Your task to perform on an android device: Open Reddit.com Image 0: 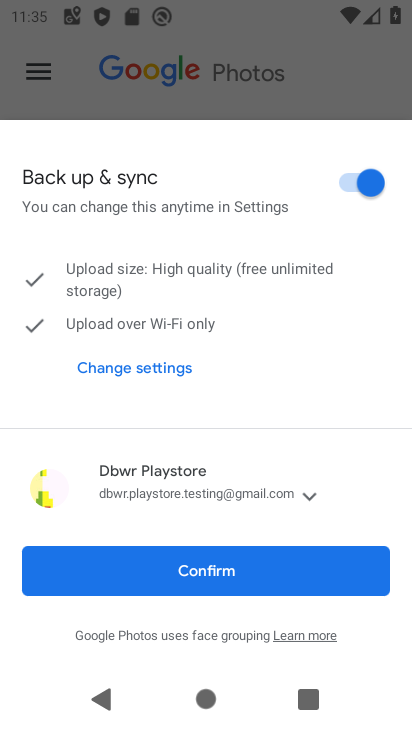
Step 0: press home button
Your task to perform on an android device: Open Reddit.com Image 1: 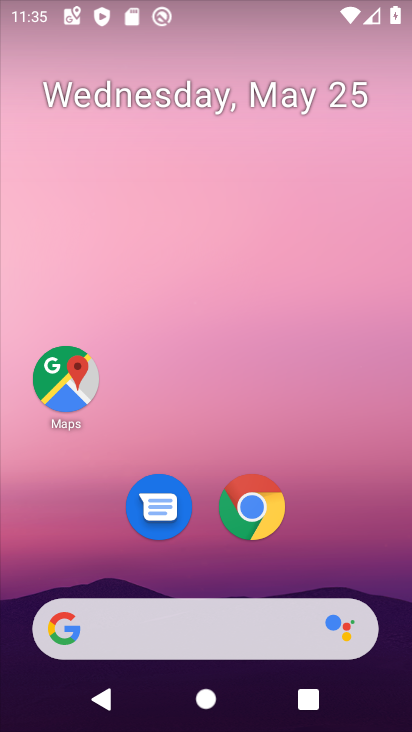
Step 1: click (255, 510)
Your task to perform on an android device: Open Reddit.com Image 2: 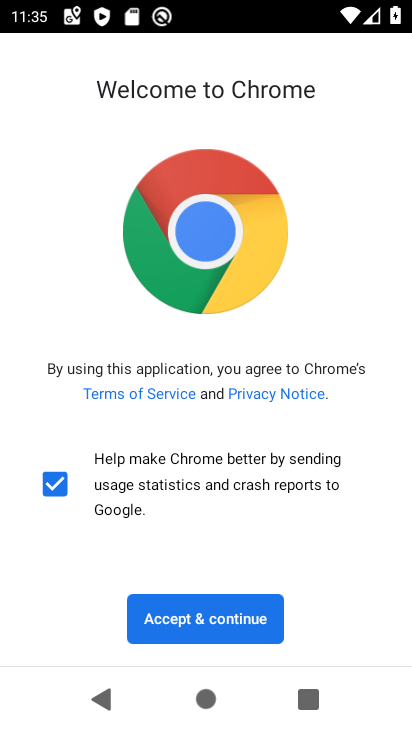
Step 2: click (205, 617)
Your task to perform on an android device: Open Reddit.com Image 3: 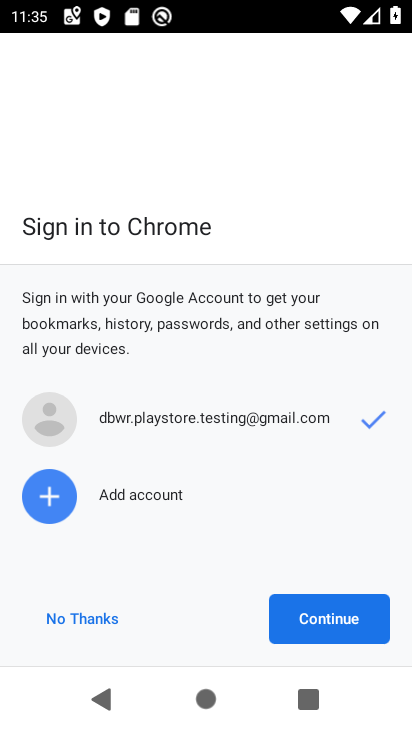
Step 3: click (326, 626)
Your task to perform on an android device: Open Reddit.com Image 4: 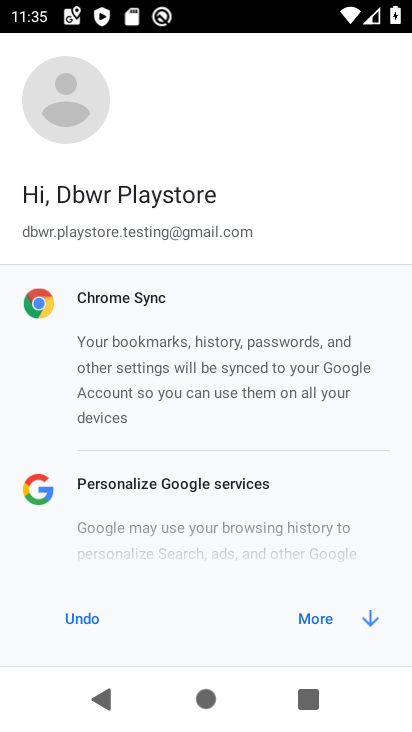
Step 4: click (326, 626)
Your task to perform on an android device: Open Reddit.com Image 5: 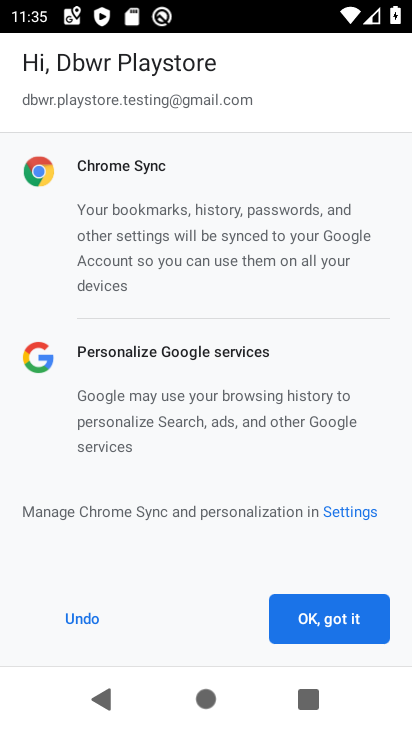
Step 5: click (326, 626)
Your task to perform on an android device: Open Reddit.com Image 6: 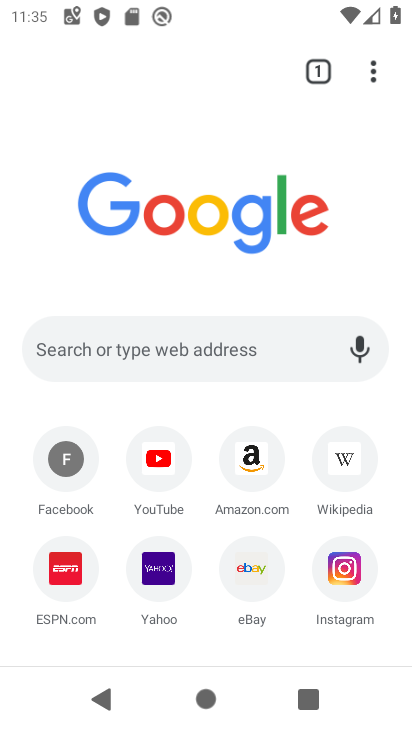
Step 6: click (184, 355)
Your task to perform on an android device: Open Reddit.com Image 7: 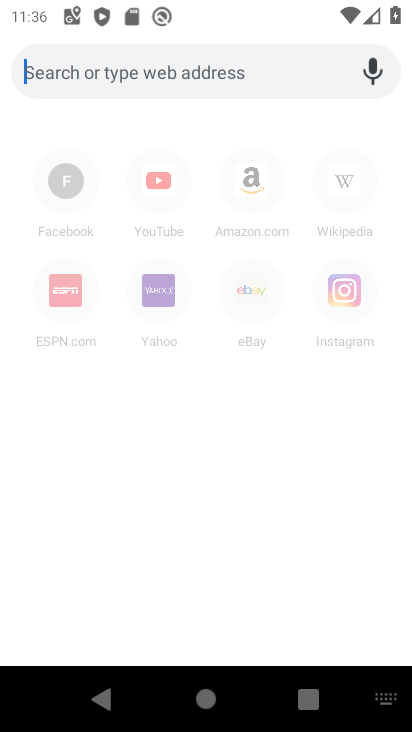
Step 7: type "Reddit.com"
Your task to perform on an android device: Open Reddit.com Image 8: 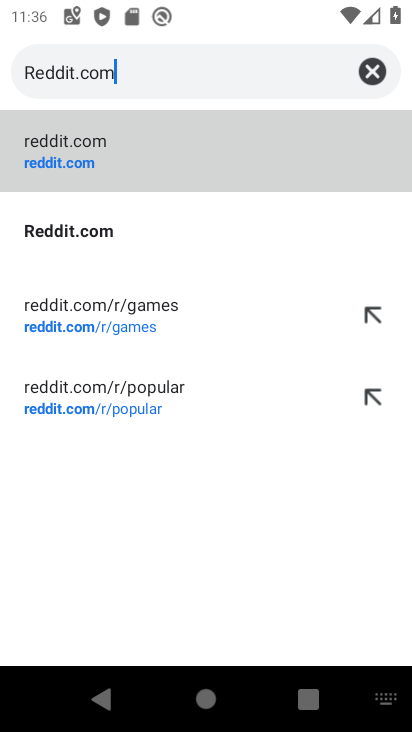
Step 8: click (107, 233)
Your task to perform on an android device: Open Reddit.com Image 9: 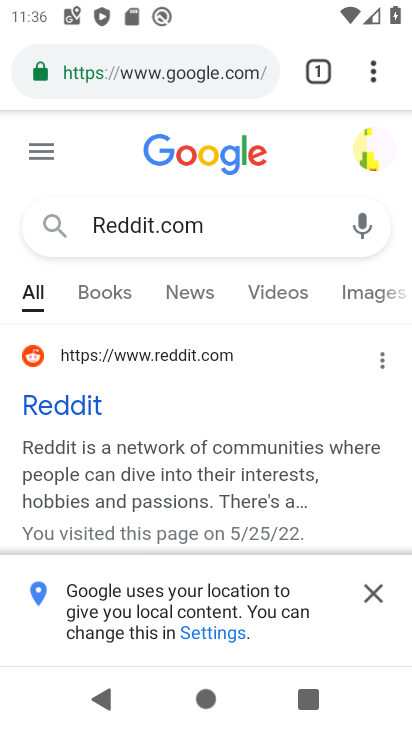
Step 9: click (58, 412)
Your task to perform on an android device: Open Reddit.com Image 10: 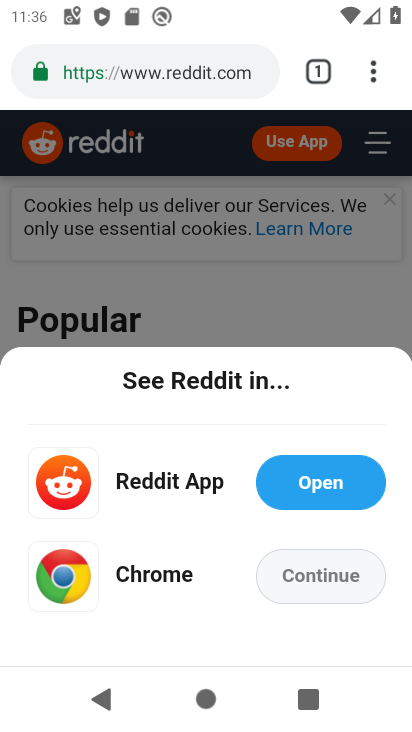
Step 10: click (327, 568)
Your task to perform on an android device: Open Reddit.com Image 11: 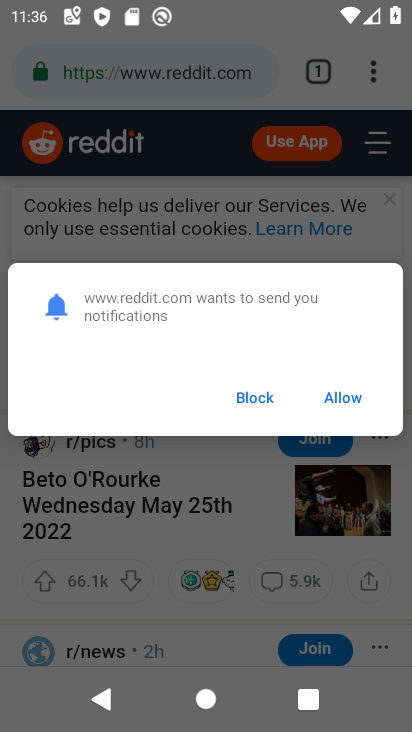
Step 11: click (334, 397)
Your task to perform on an android device: Open Reddit.com Image 12: 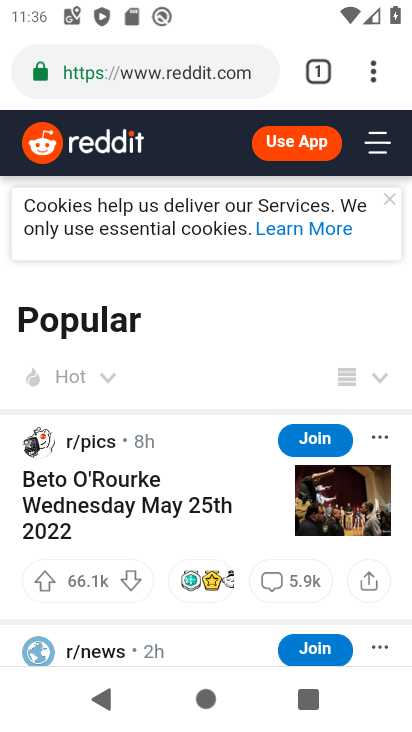
Step 12: task complete